Your task to perform on an android device: turn smart compose on in the gmail app Image 0: 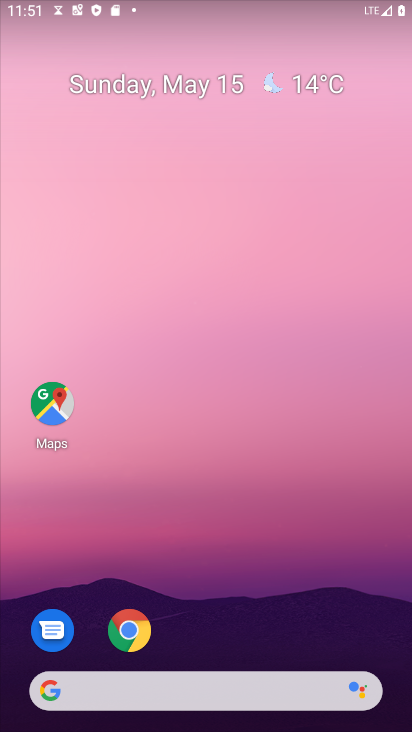
Step 0: drag from (70, 430) to (260, 89)
Your task to perform on an android device: turn smart compose on in the gmail app Image 1: 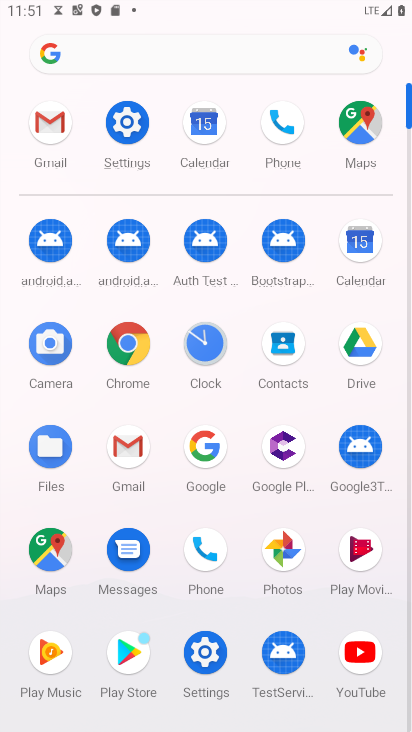
Step 1: click (42, 128)
Your task to perform on an android device: turn smart compose on in the gmail app Image 2: 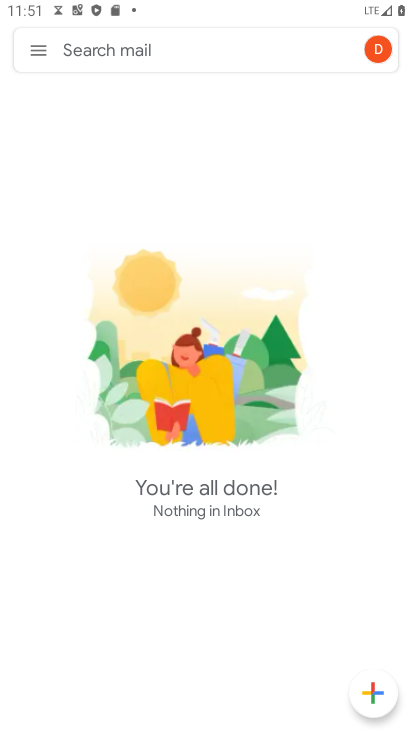
Step 2: click (38, 46)
Your task to perform on an android device: turn smart compose on in the gmail app Image 3: 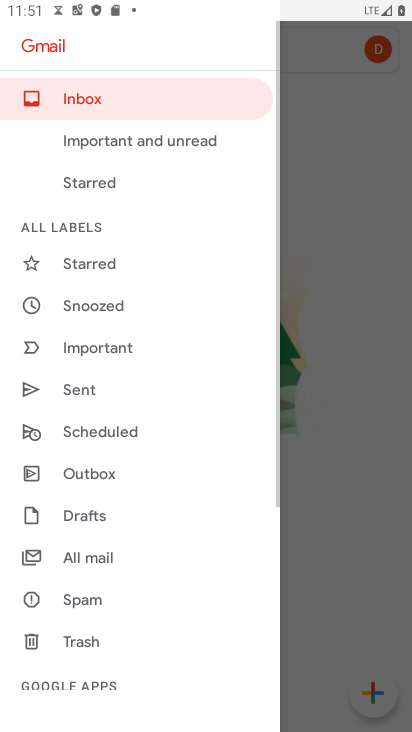
Step 3: drag from (35, 693) to (129, 213)
Your task to perform on an android device: turn smart compose on in the gmail app Image 4: 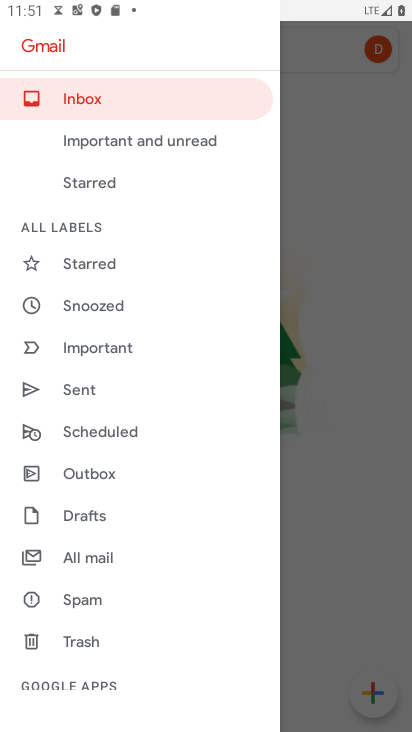
Step 4: drag from (101, 643) to (181, 159)
Your task to perform on an android device: turn smart compose on in the gmail app Image 5: 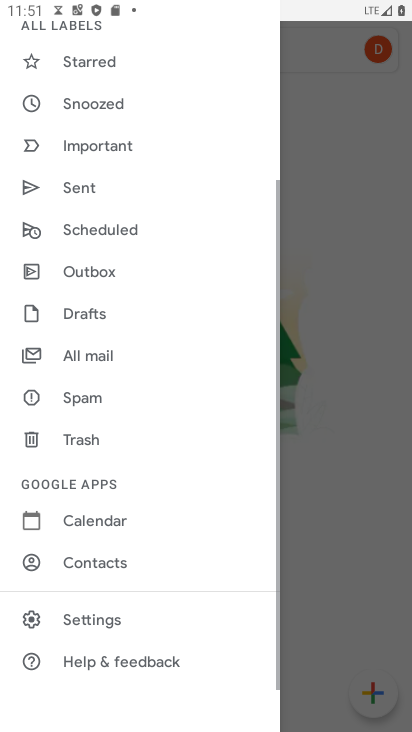
Step 5: click (110, 621)
Your task to perform on an android device: turn smart compose on in the gmail app Image 6: 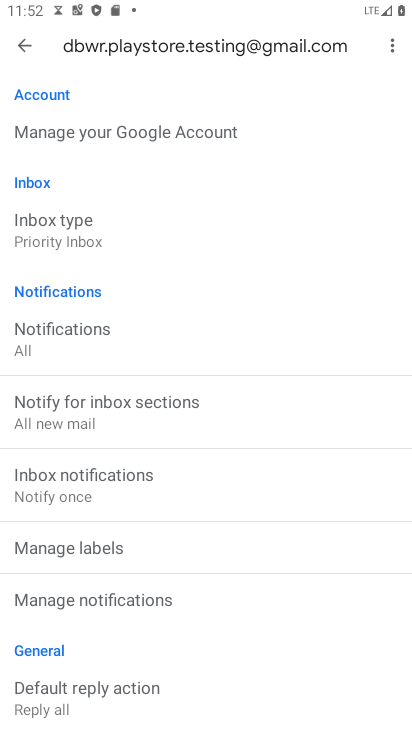
Step 6: task complete